Your task to perform on an android device: turn off javascript in the chrome app Image 0: 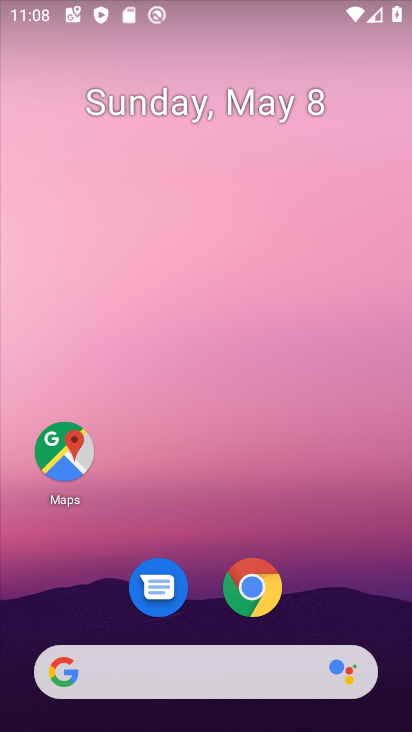
Step 0: drag from (367, 646) to (145, 144)
Your task to perform on an android device: turn off javascript in the chrome app Image 1: 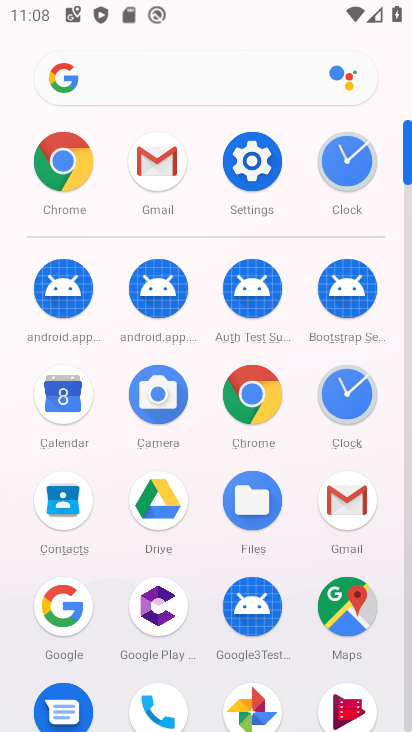
Step 1: click (57, 153)
Your task to perform on an android device: turn off javascript in the chrome app Image 2: 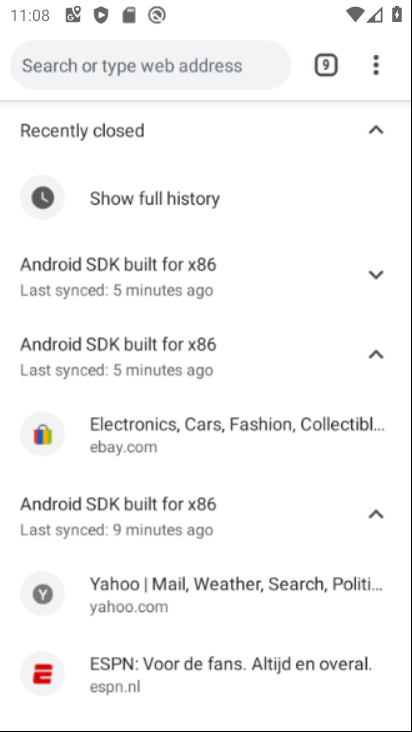
Step 2: click (57, 154)
Your task to perform on an android device: turn off javascript in the chrome app Image 3: 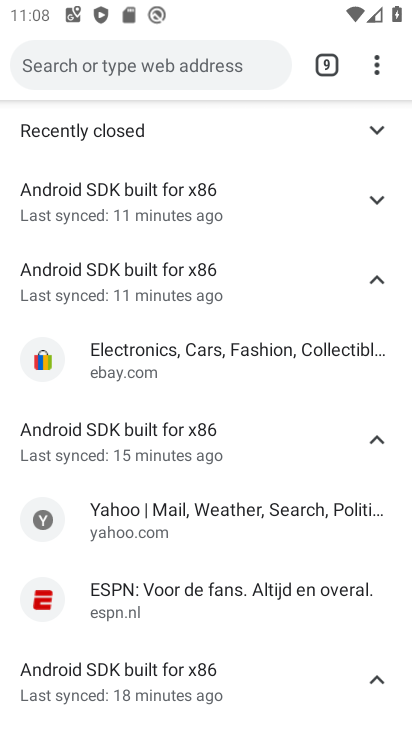
Step 3: drag from (374, 73) to (149, 532)
Your task to perform on an android device: turn off javascript in the chrome app Image 4: 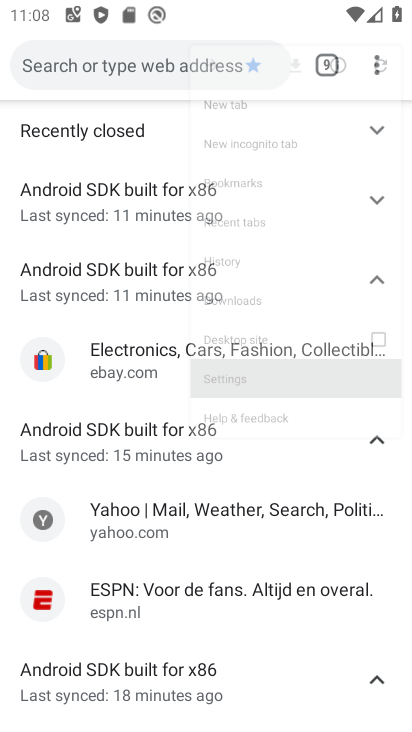
Step 4: click (149, 532)
Your task to perform on an android device: turn off javascript in the chrome app Image 5: 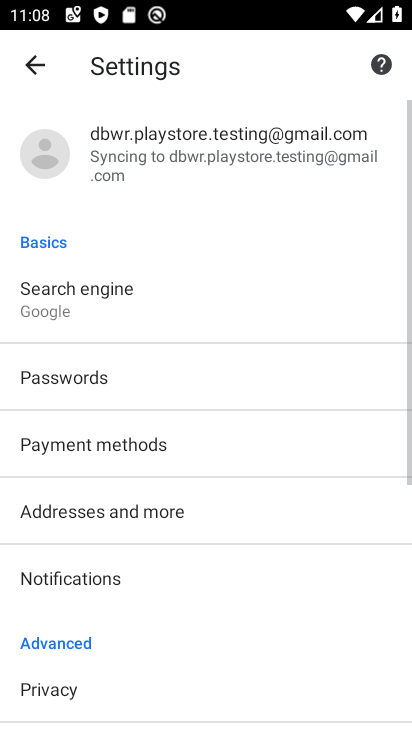
Step 5: drag from (162, 591) to (176, 165)
Your task to perform on an android device: turn off javascript in the chrome app Image 6: 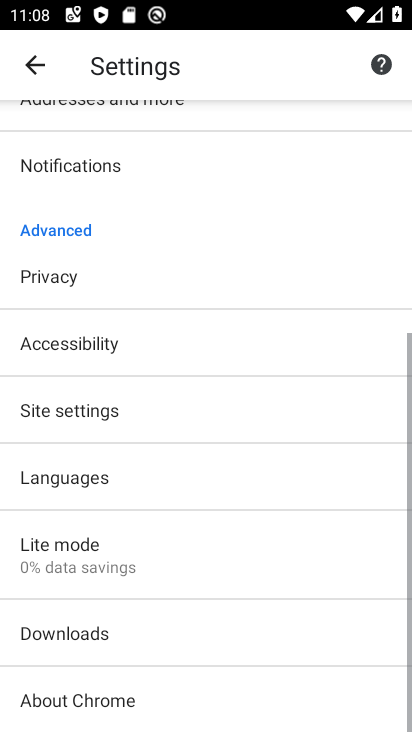
Step 6: drag from (146, 614) to (72, 112)
Your task to perform on an android device: turn off javascript in the chrome app Image 7: 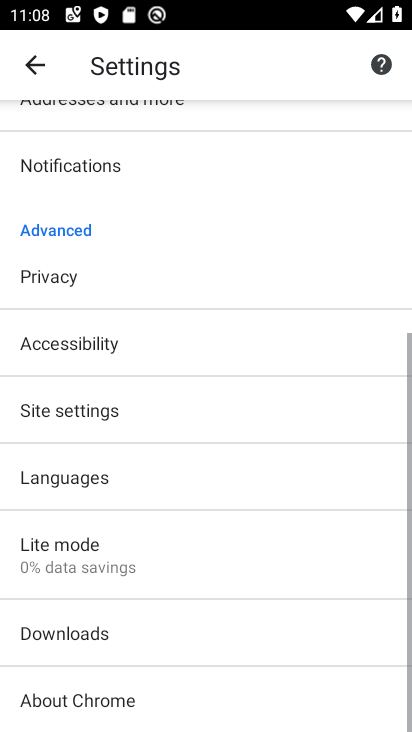
Step 7: click (69, 408)
Your task to perform on an android device: turn off javascript in the chrome app Image 8: 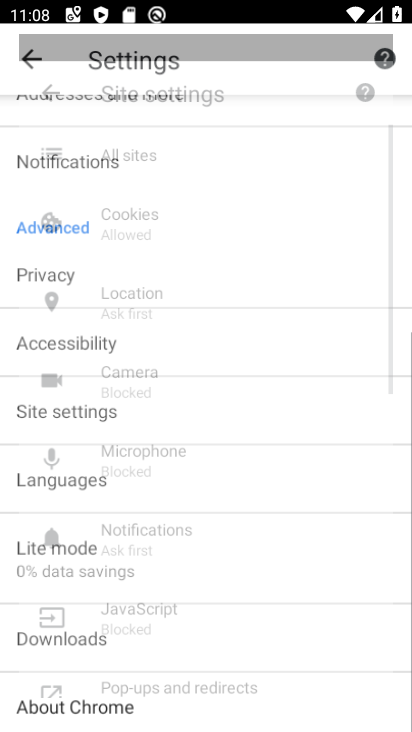
Step 8: click (67, 406)
Your task to perform on an android device: turn off javascript in the chrome app Image 9: 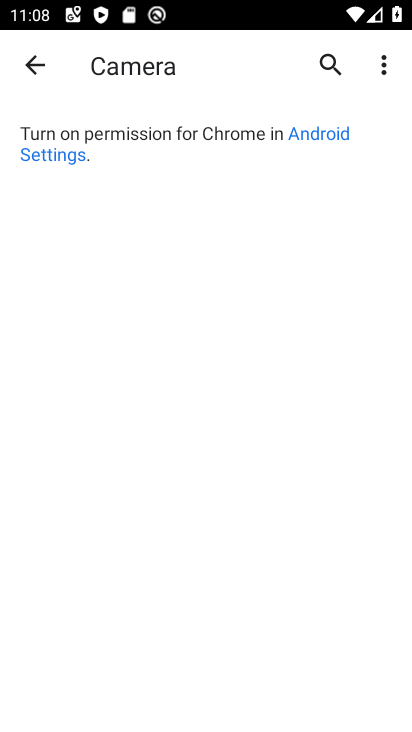
Step 9: click (28, 74)
Your task to perform on an android device: turn off javascript in the chrome app Image 10: 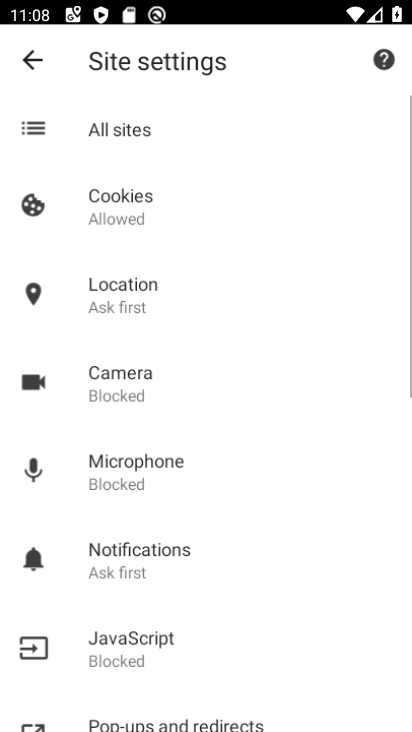
Step 10: click (28, 74)
Your task to perform on an android device: turn off javascript in the chrome app Image 11: 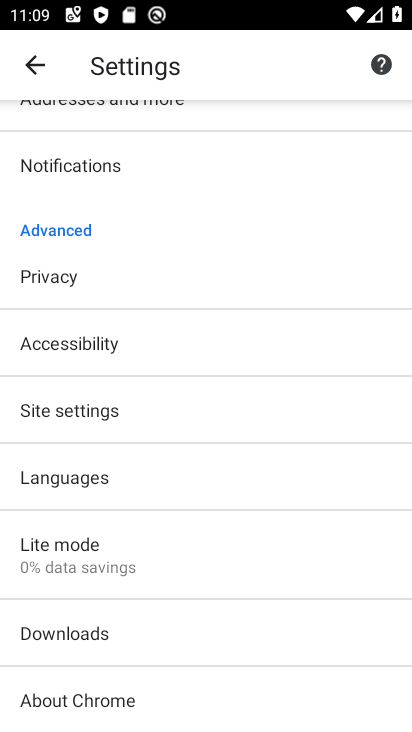
Step 11: click (62, 409)
Your task to perform on an android device: turn off javascript in the chrome app Image 12: 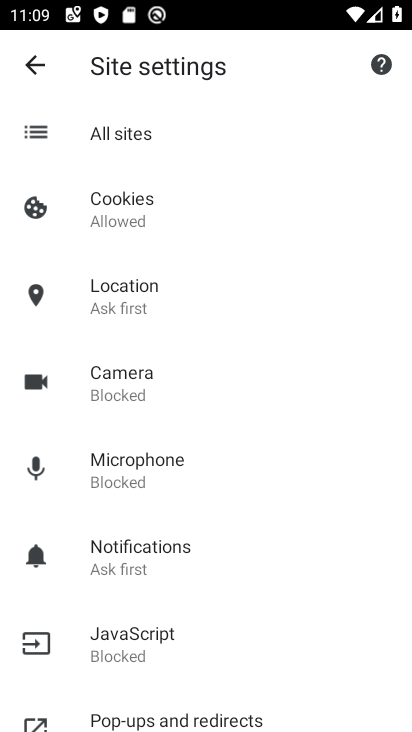
Step 12: click (132, 639)
Your task to perform on an android device: turn off javascript in the chrome app Image 13: 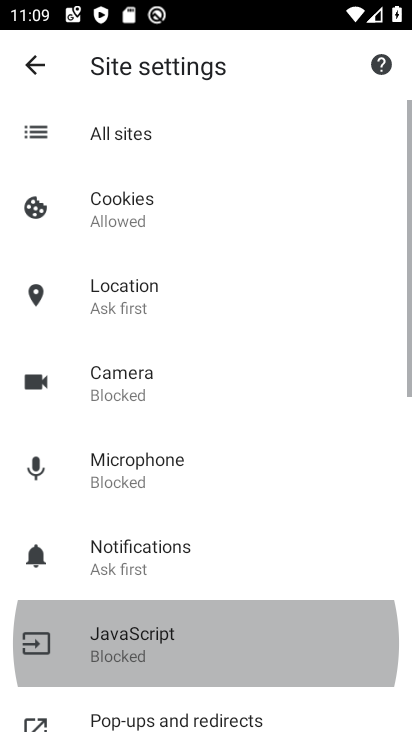
Step 13: click (165, 636)
Your task to perform on an android device: turn off javascript in the chrome app Image 14: 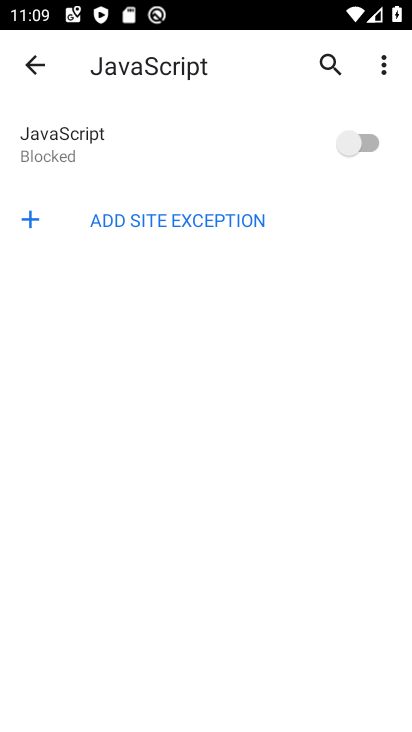
Step 14: task complete